Your task to perform on an android device: Open Google Image 0: 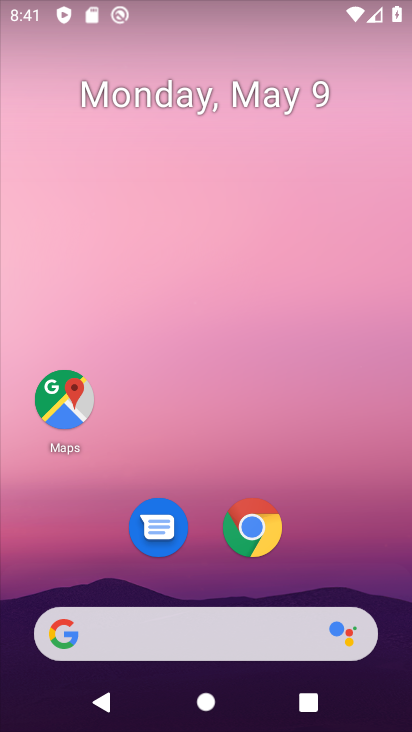
Step 0: drag from (327, 547) to (316, 49)
Your task to perform on an android device: Open Google Image 1: 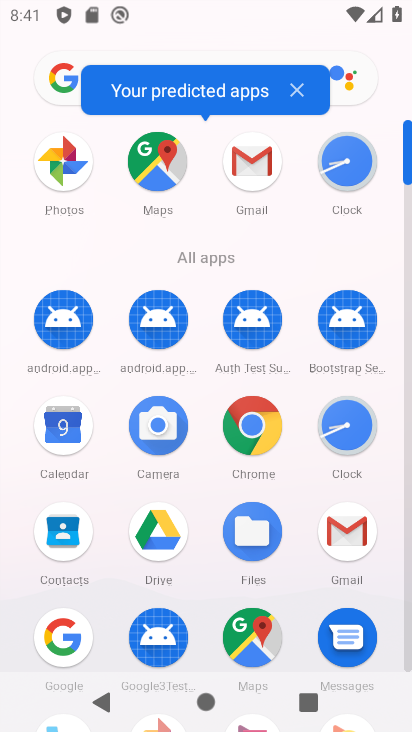
Step 1: click (69, 650)
Your task to perform on an android device: Open Google Image 2: 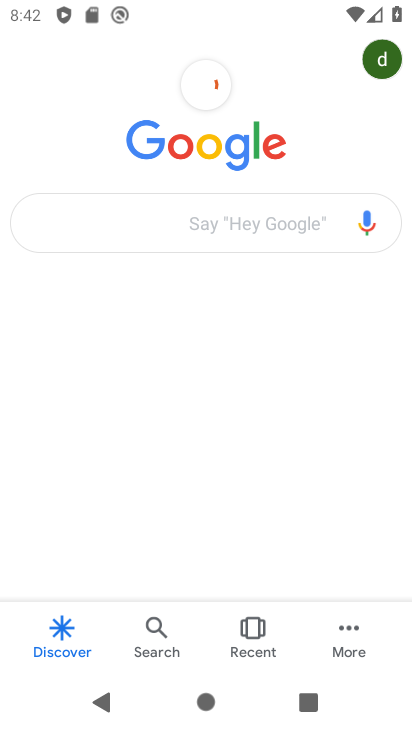
Step 2: task complete